Your task to perform on an android device: Go to Google Image 0: 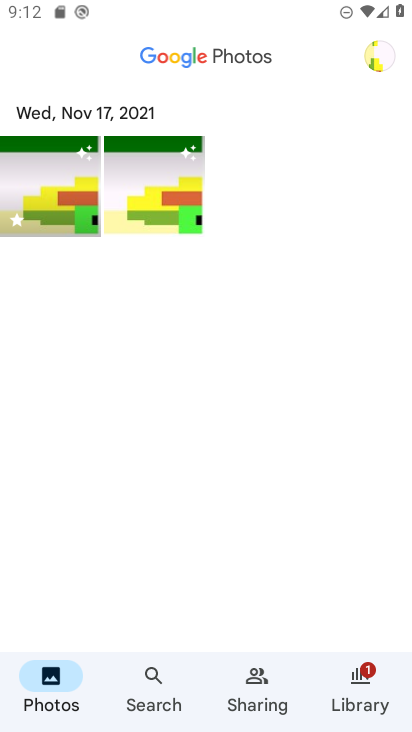
Step 0: press home button
Your task to perform on an android device: Go to Google Image 1: 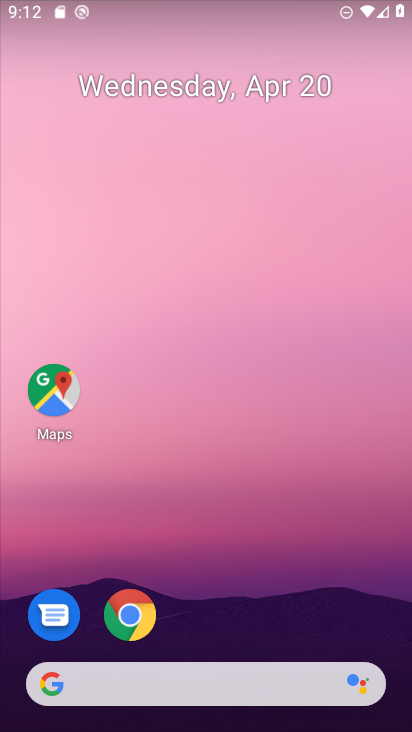
Step 1: drag from (222, 592) to (264, 77)
Your task to perform on an android device: Go to Google Image 2: 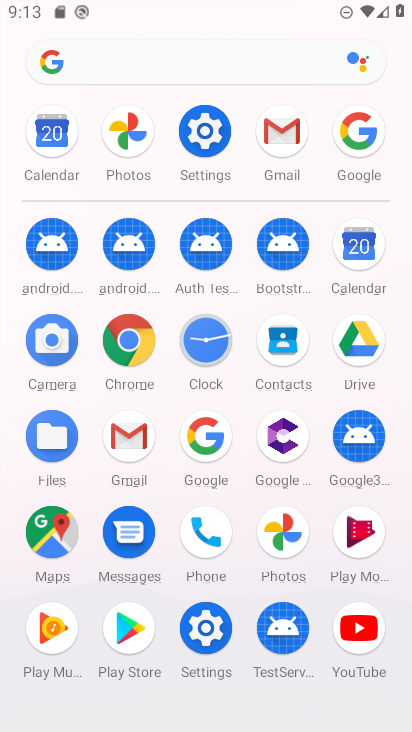
Step 2: click (358, 130)
Your task to perform on an android device: Go to Google Image 3: 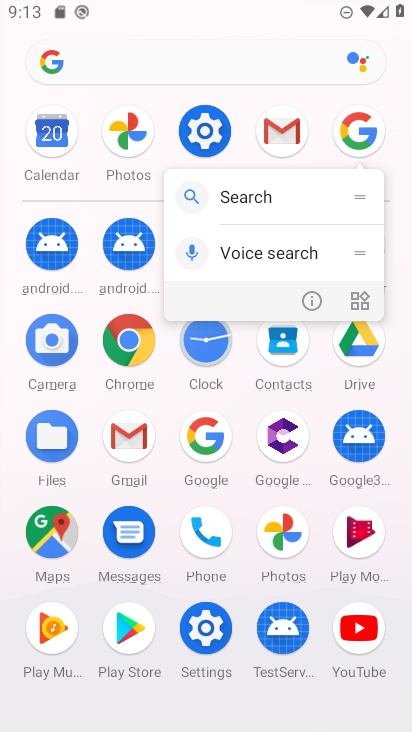
Step 3: click (358, 130)
Your task to perform on an android device: Go to Google Image 4: 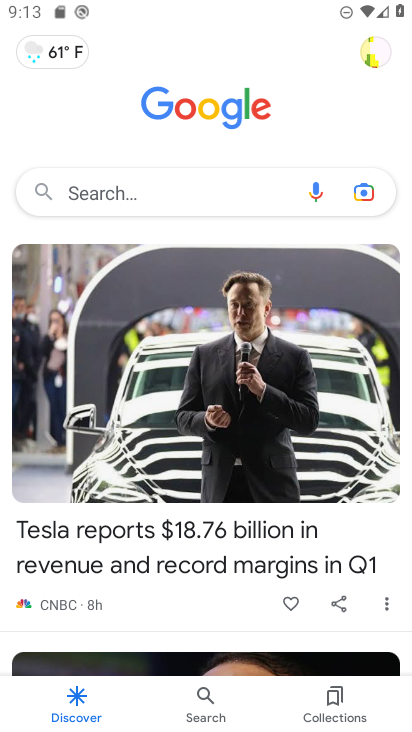
Step 4: task complete